Your task to perform on an android device: Open Chrome and go to the settings page Image 0: 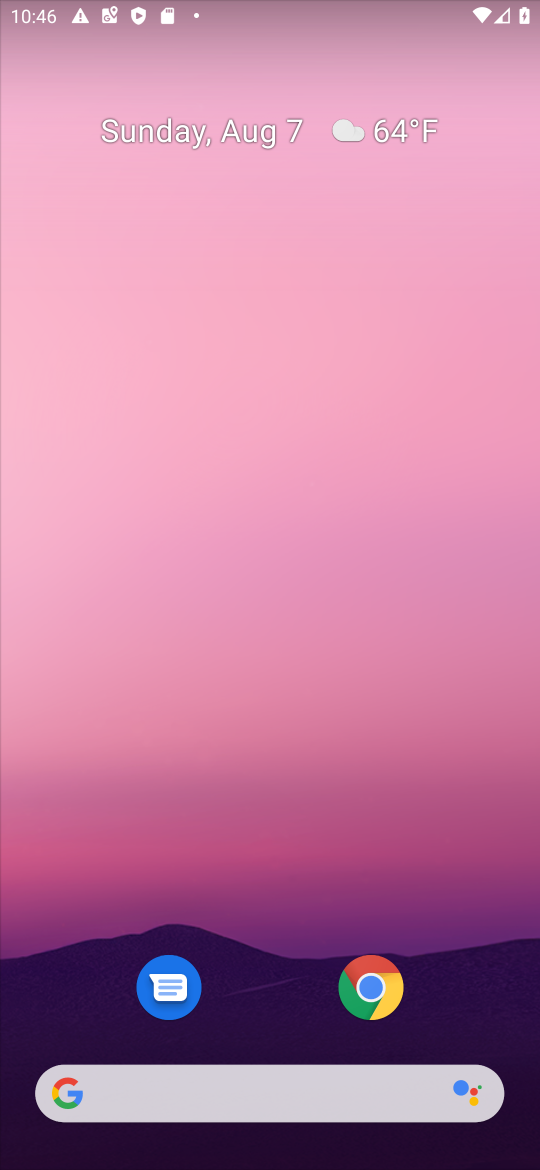
Step 0: click (375, 990)
Your task to perform on an android device: Open Chrome and go to the settings page Image 1: 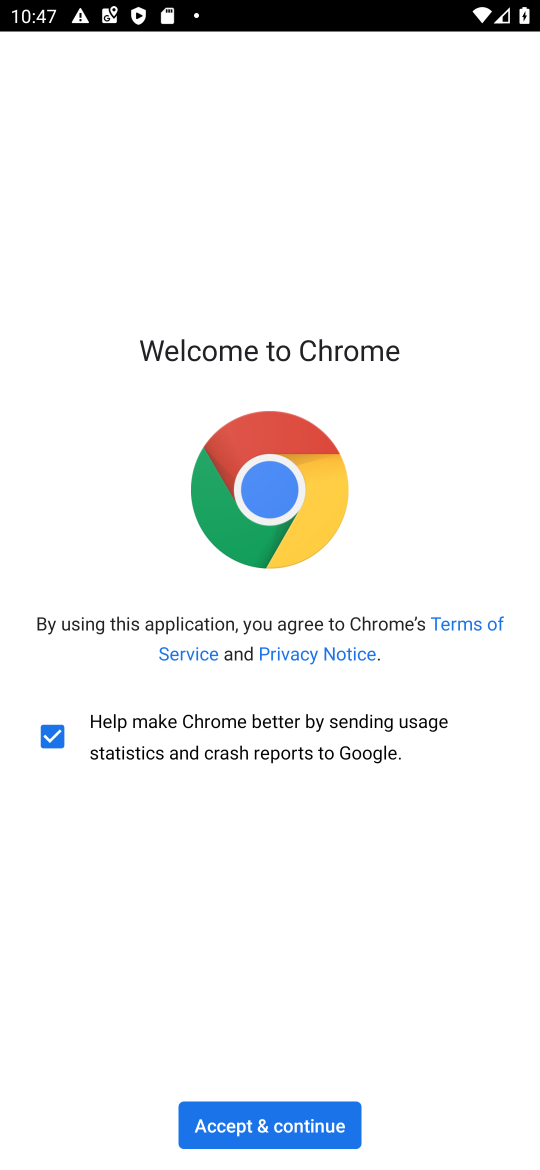
Step 1: click (314, 1122)
Your task to perform on an android device: Open Chrome and go to the settings page Image 2: 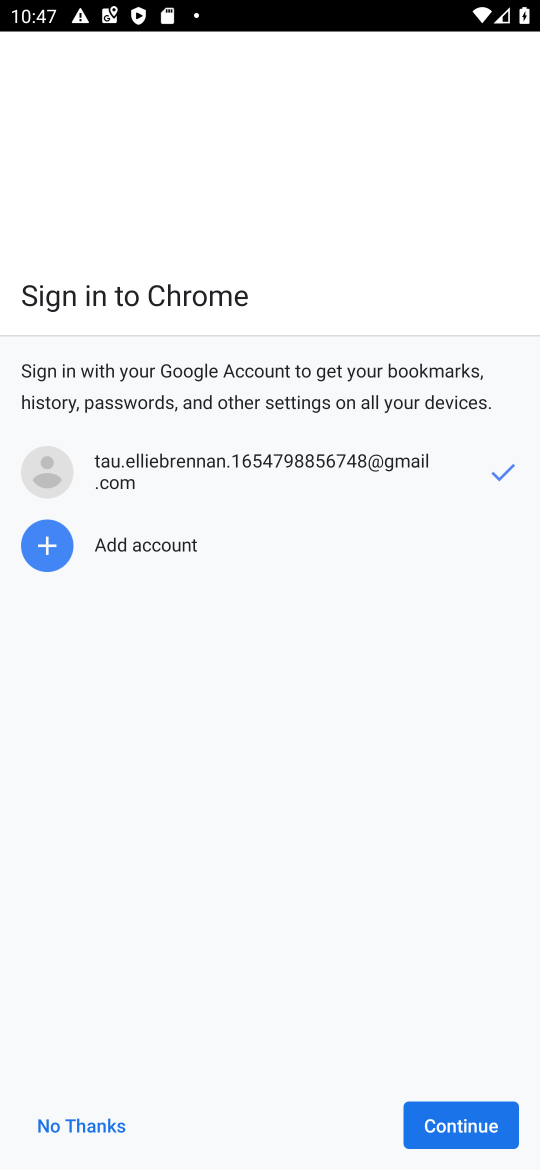
Step 2: click (478, 1127)
Your task to perform on an android device: Open Chrome and go to the settings page Image 3: 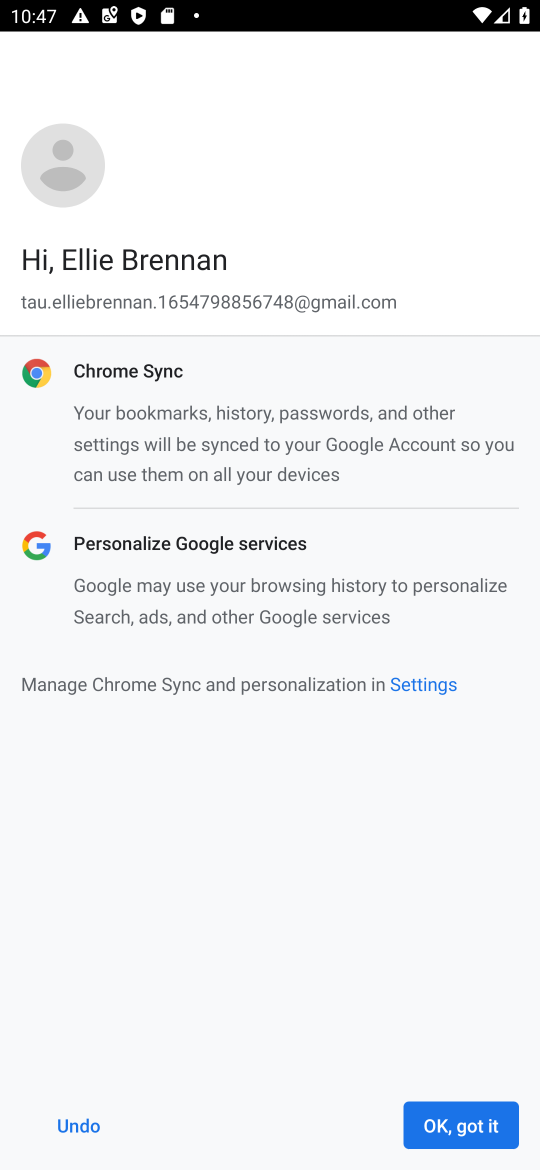
Step 3: click (480, 1138)
Your task to perform on an android device: Open Chrome and go to the settings page Image 4: 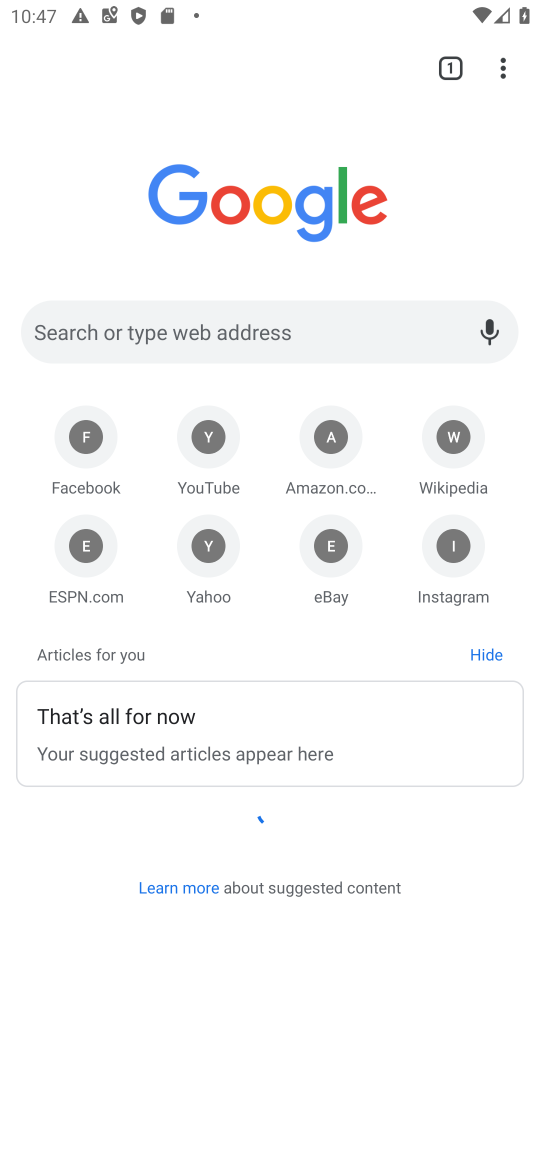
Step 4: click (501, 65)
Your task to perform on an android device: Open Chrome and go to the settings page Image 5: 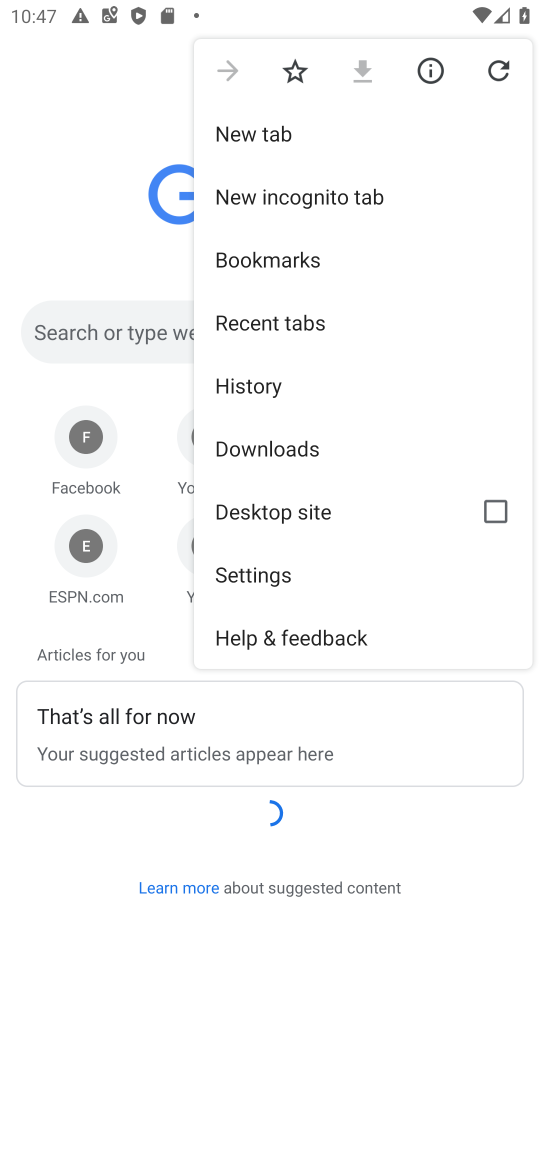
Step 5: click (234, 565)
Your task to perform on an android device: Open Chrome and go to the settings page Image 6: 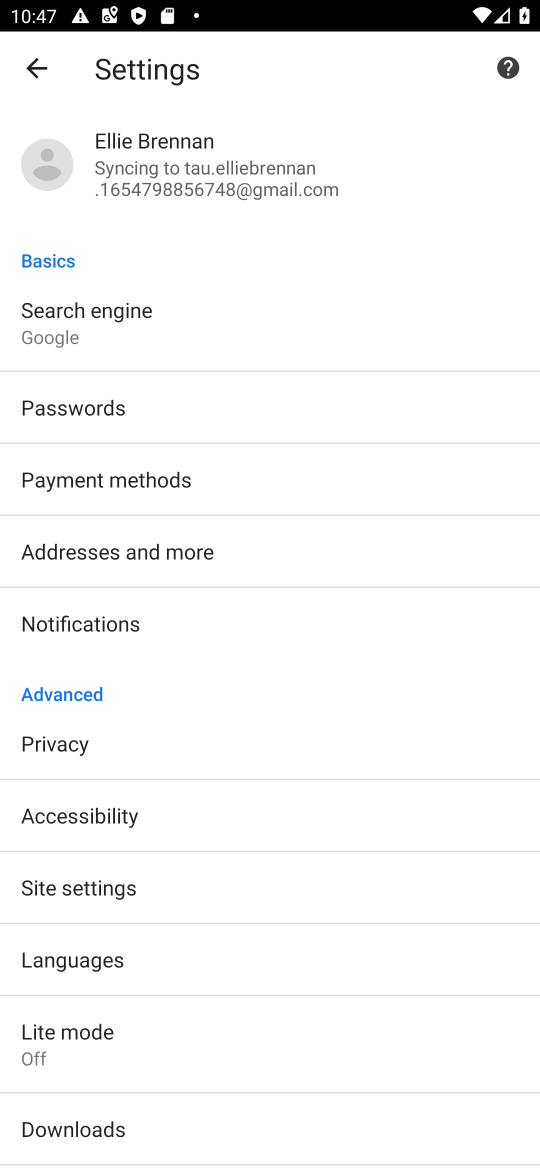
Step 6: task complete